Your task to perform on an android device: Go to notification settings Image 0: 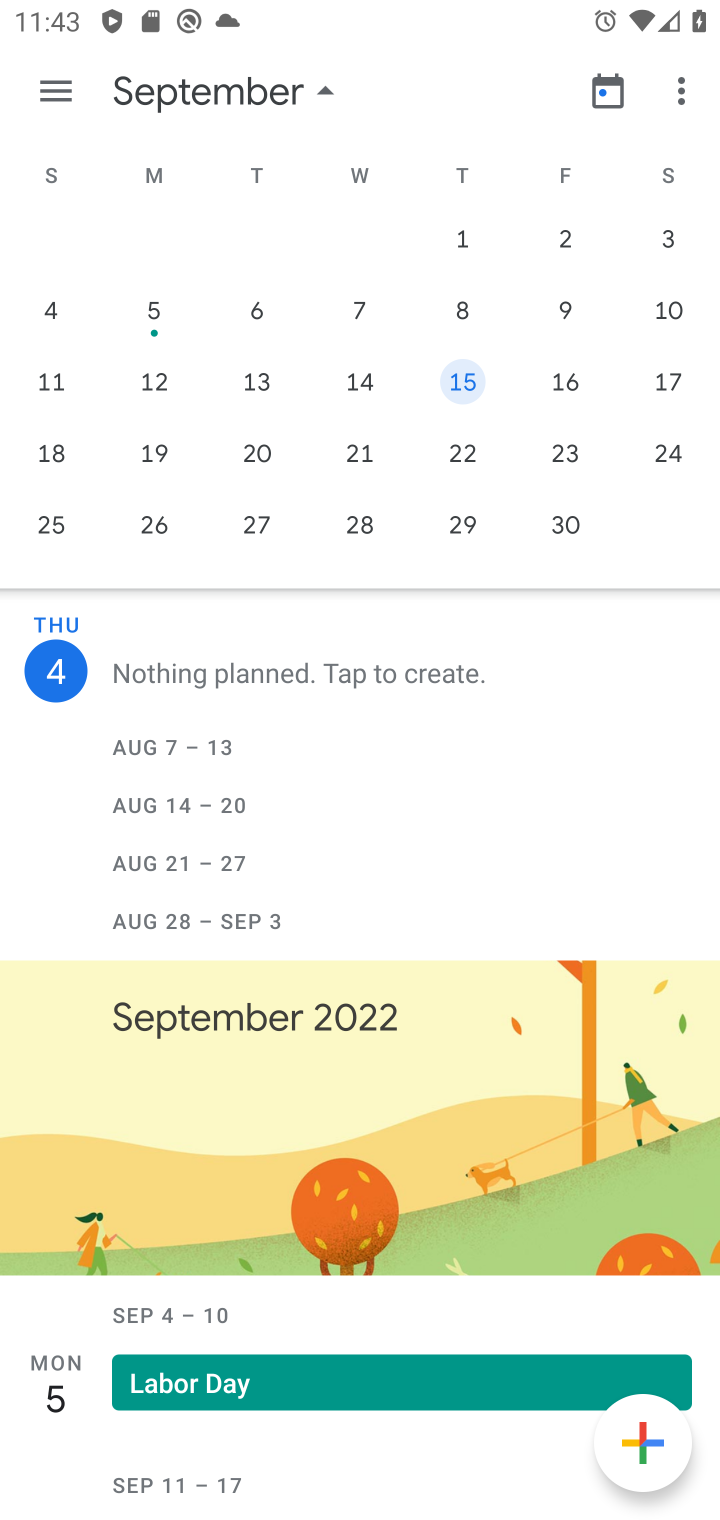
Step 0: drag from (55, 301) to (369, 305)
Your task to perform on an android device: Go to notification settings Image 1: 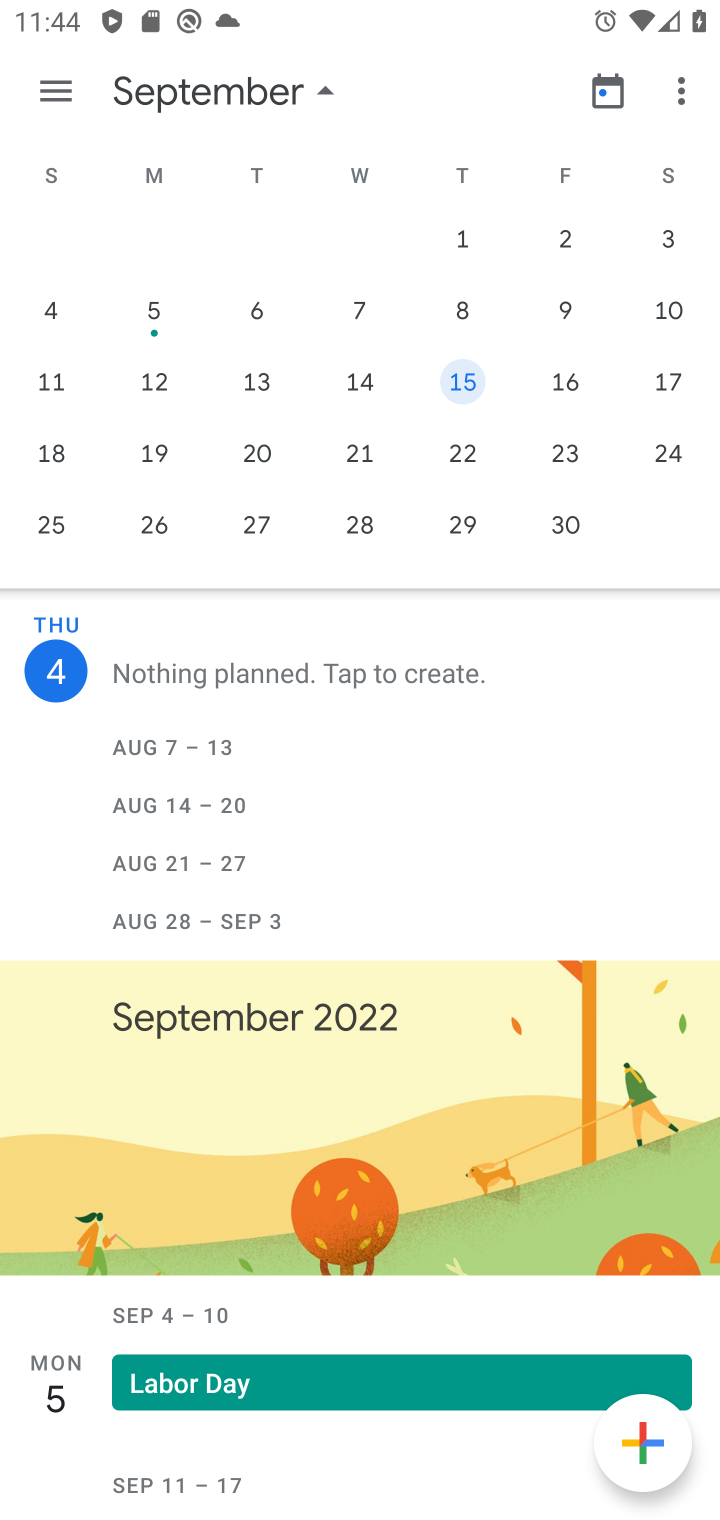
Step 1: press home button
Your task to perform on an android device: Go to notification settings Image 2: 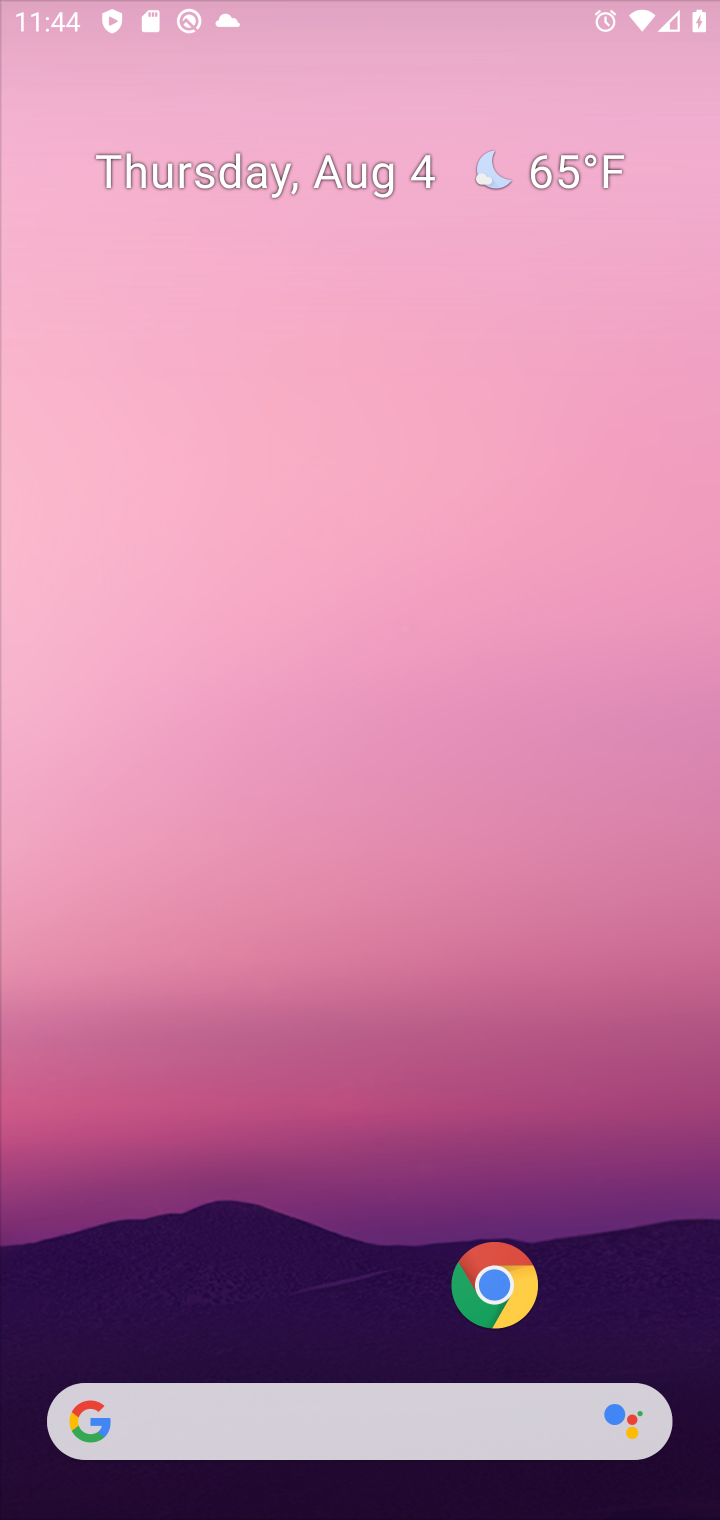
Step 2: drag from (448, 1076) to (622, 108)
Your task to perform on an android device: Go to notification settings Image 3: 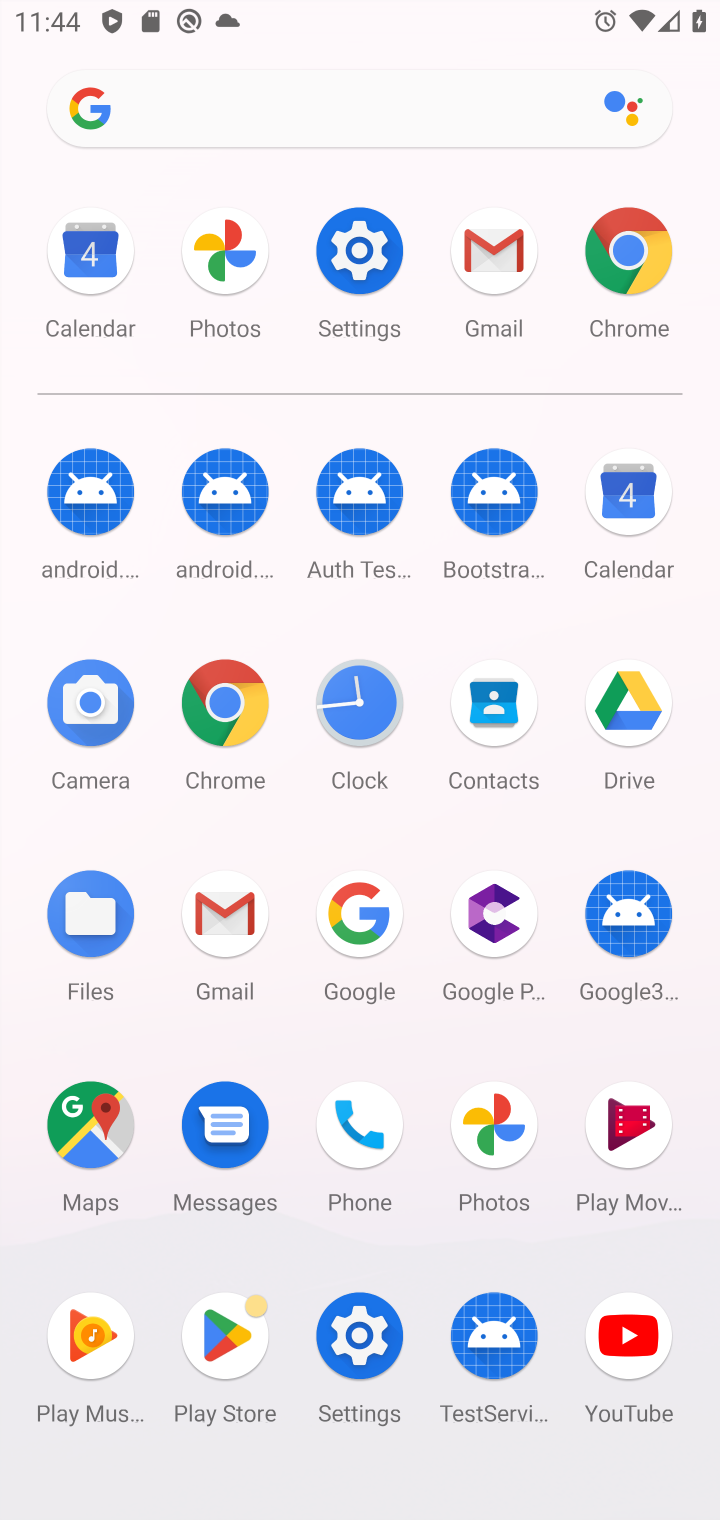
Step 3: click (352, 1399)
Your task to perform on an android device: Go to notification settings Image 4: 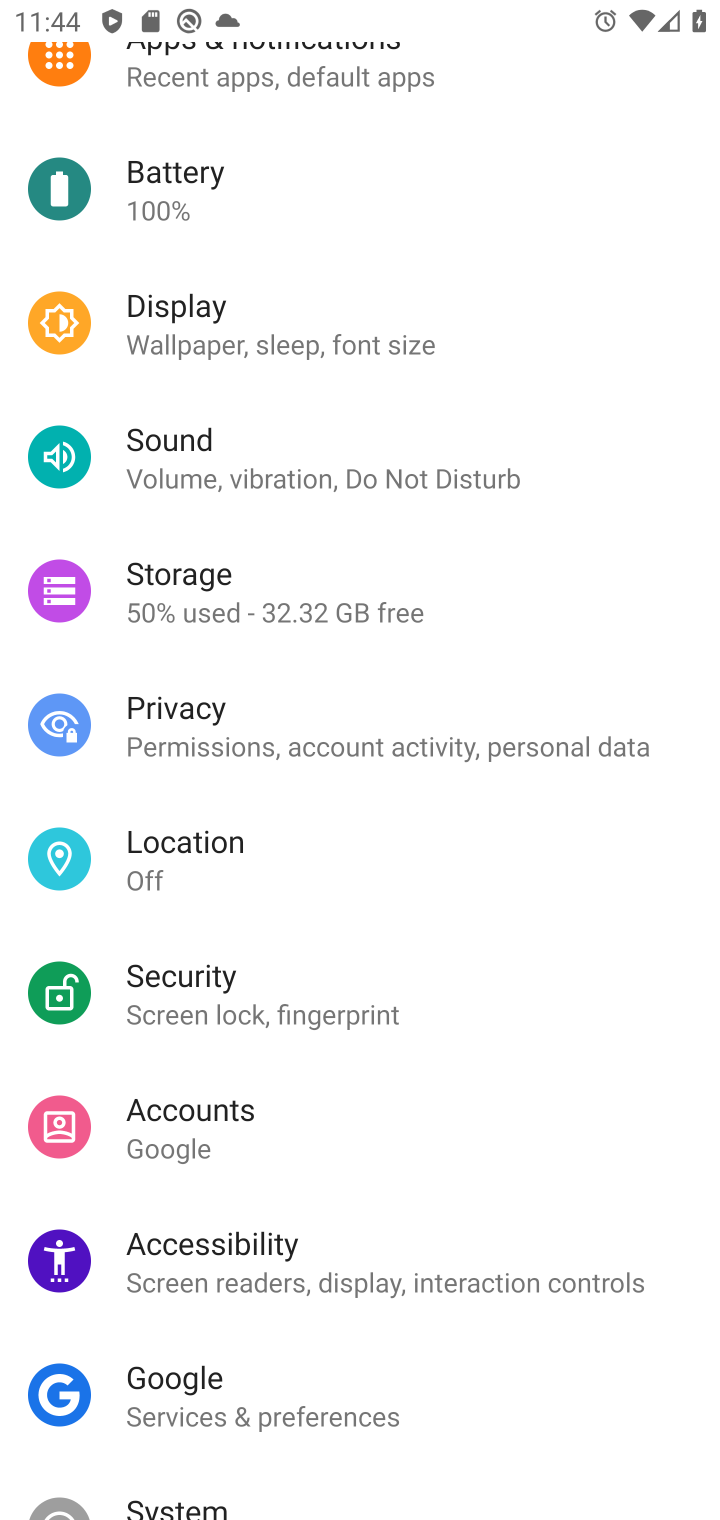
Step 4: drag from (161, 463) to (110, 1066)
Your task to perform on an android device: Go to notification settings Image 5: 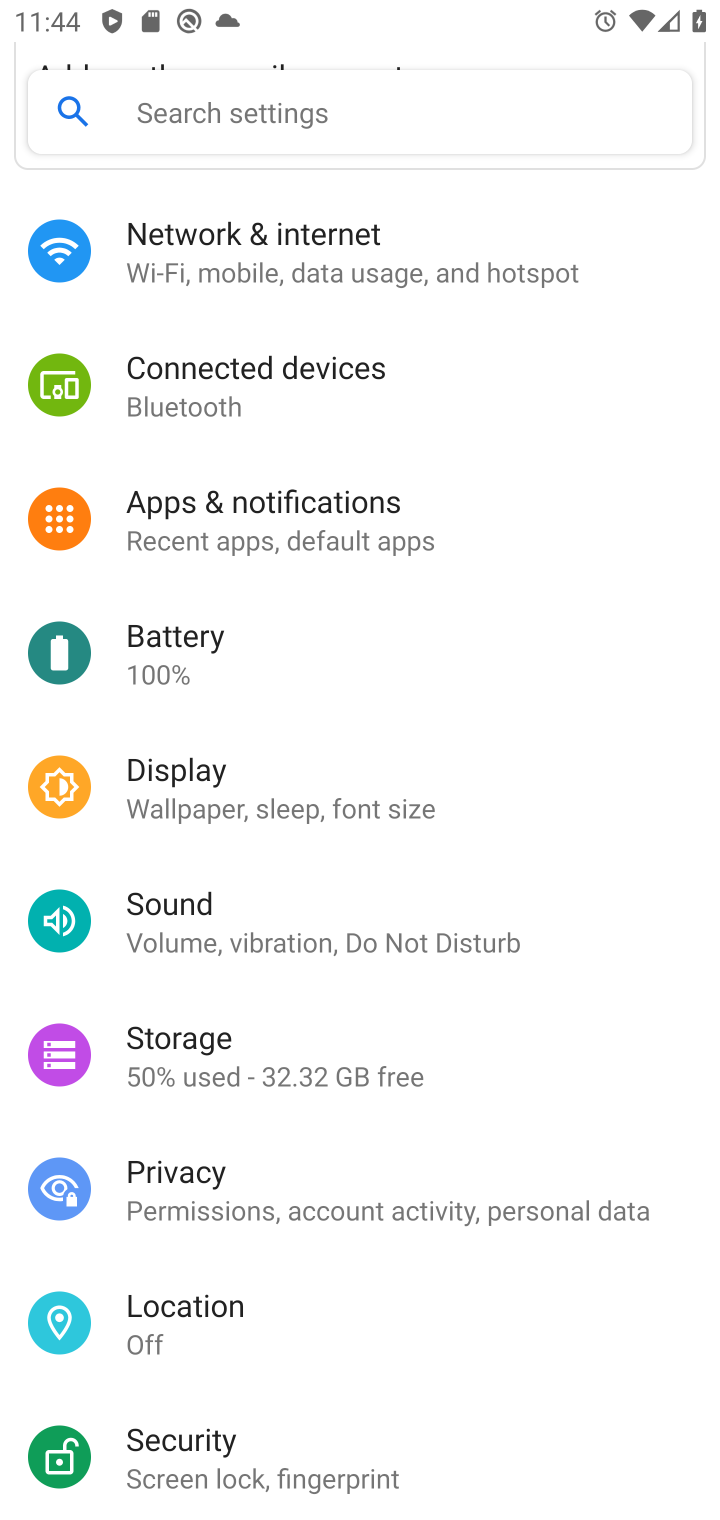
Step 5: click (364, 507)
Your task to perform on an android device: Go to notification settings Image 6: 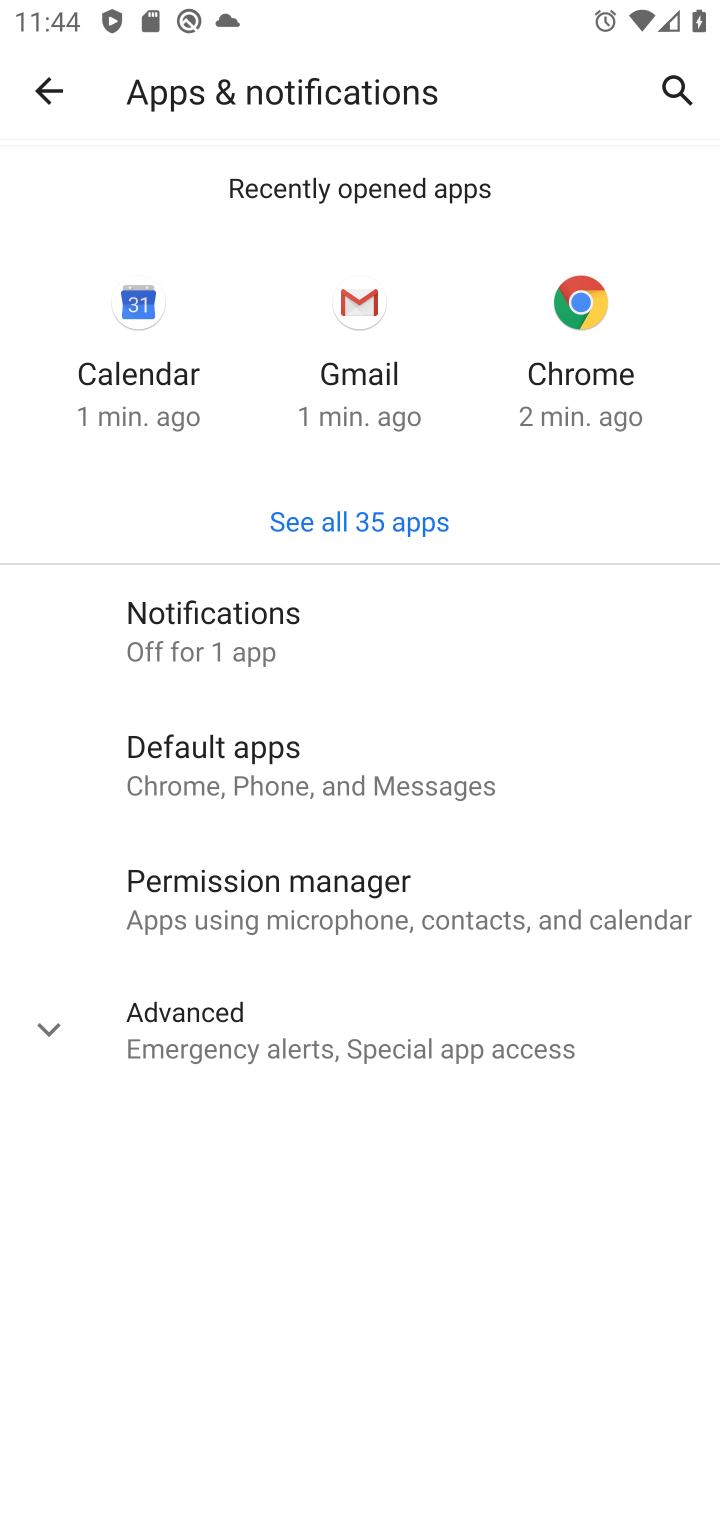
Step 6: task complete